Your task to perform on an android device: turn on translation in the chrome app Image 0: 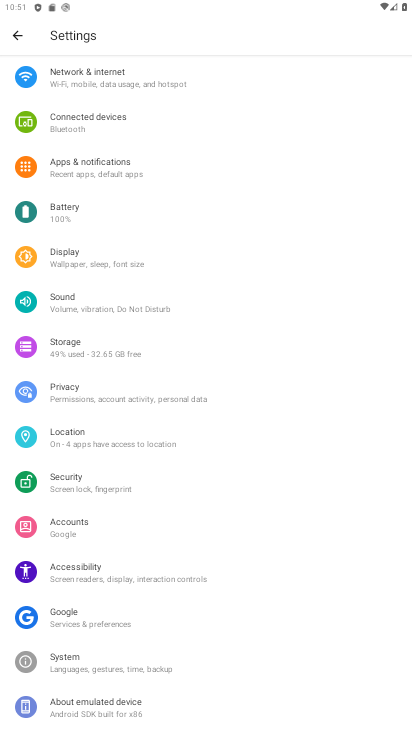
Step 0: press home button
Your task to perform on an android device: turn on translation in the chrome app Image 1: 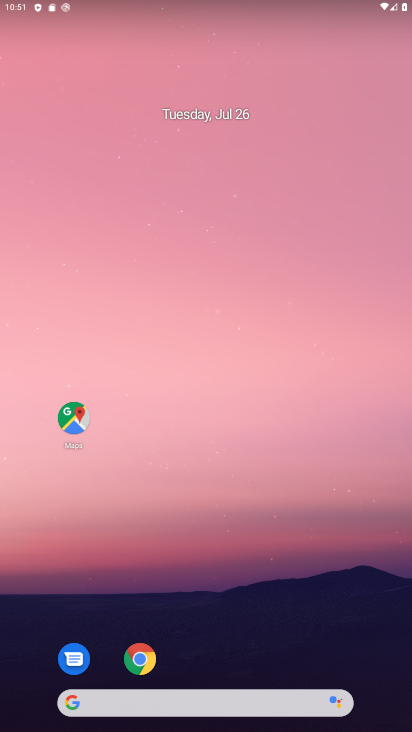
Step 1: click (140, 659)
Your task to perform on an android device: turn on translation in the chrome app Image 2: 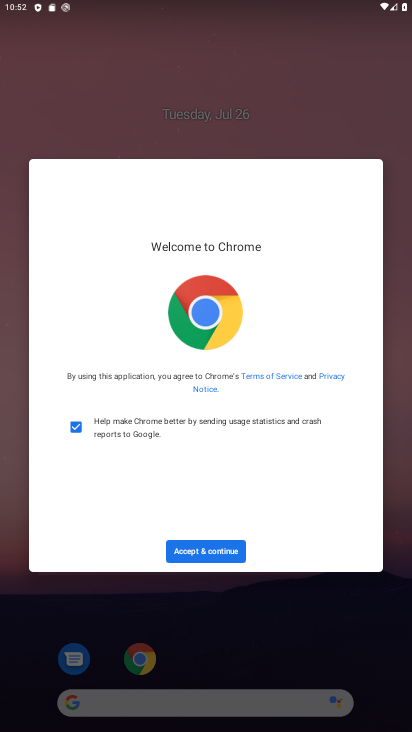
Step 2: click (202, 548)
Your task to perform on an android device: turn on translation in the chrome app Image 3: 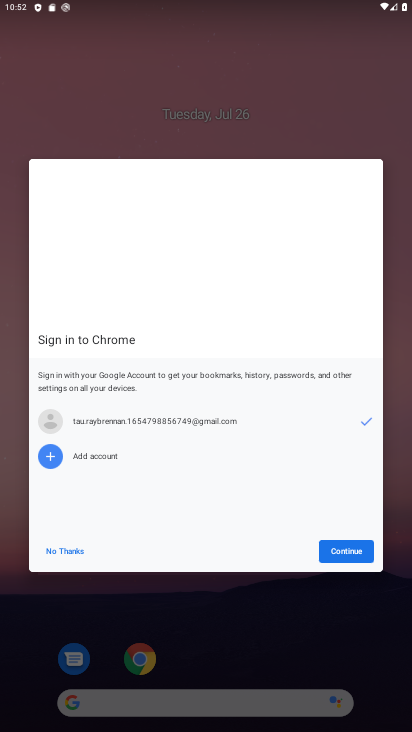
Step 3: click (338, 550)
Your task to perform on an android device: turn on translation in the chrome app Image 4: 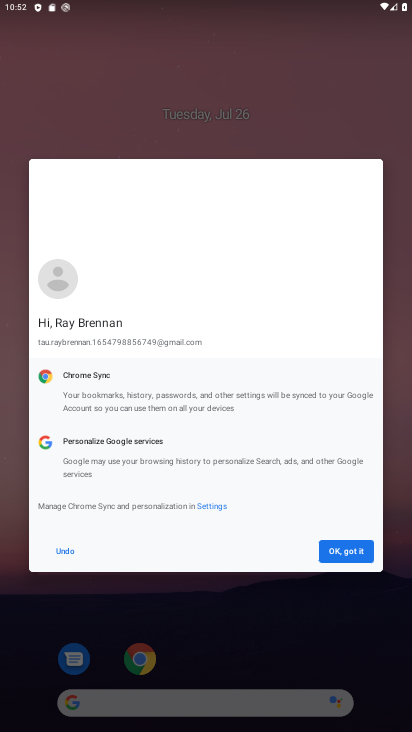
Step 4: click (338, 550)
Your task to perform on an android device: turn on translation in the chrome app Image 5: 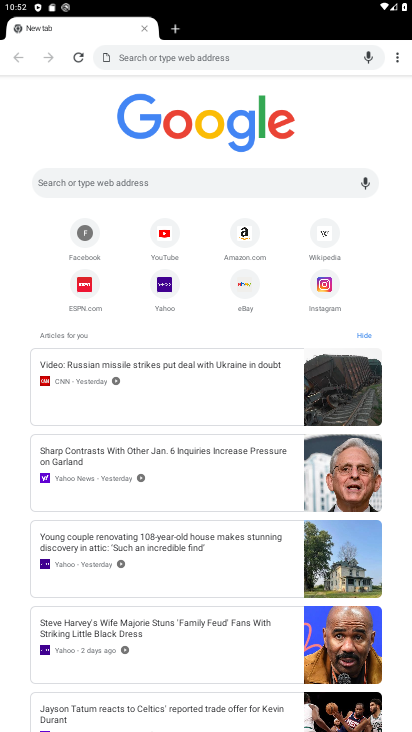
Step 5: click (397, 56)
Your task to perform on an android device: turn on translation in the chrome app Image 6: 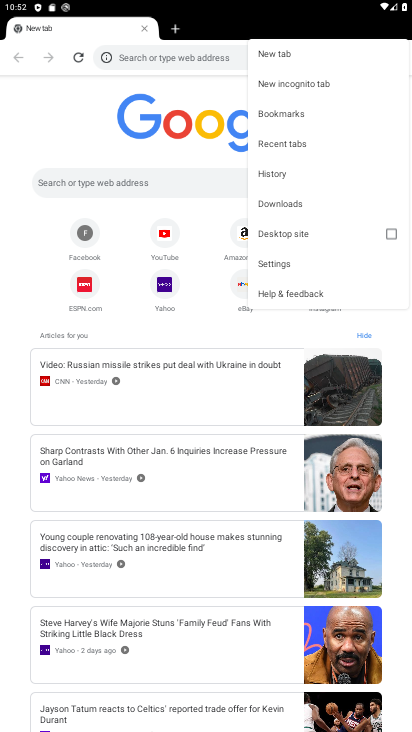
Step 6: click (282, 265)
Your task to perform on an android device: turn on translation in the chrome app Image 7: 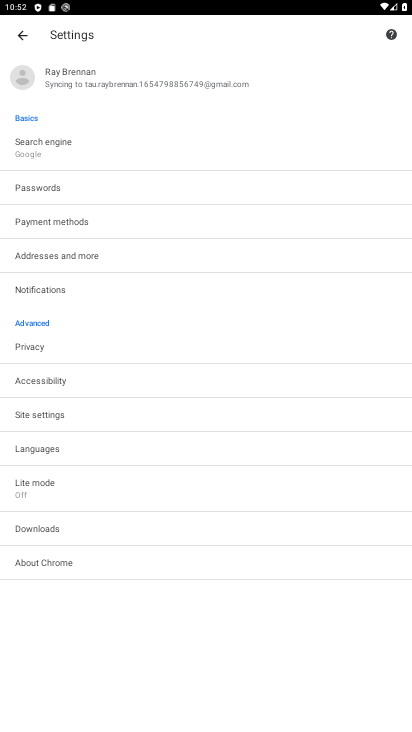
Step 7: click (46, 448)
Your task to perform on an android device: turn on translation in the chrome app Image 8: 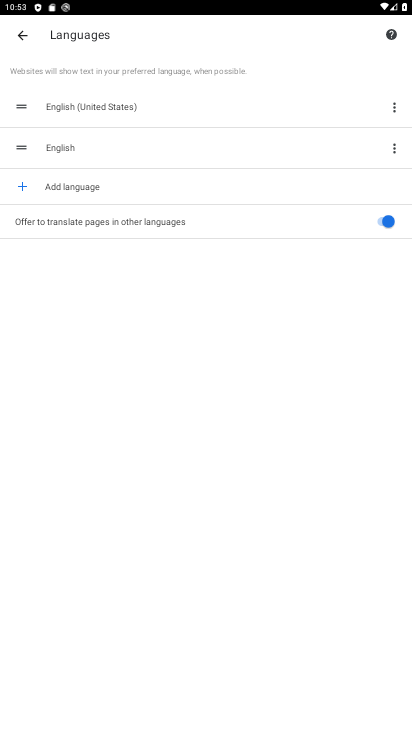
Step 8: task complete